Your task to perform on an android device: Go to Yahoo.com Image 0: 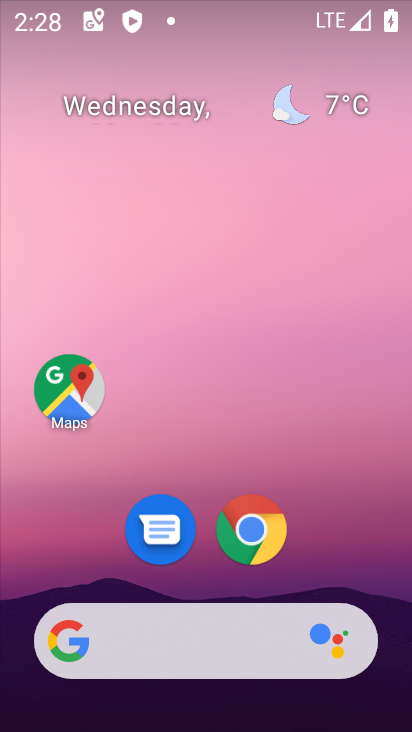
Step 0: drag from (337, 422) to (318, 100)
Your task to perform on an android device: Go to Yahoo.com Image 1: 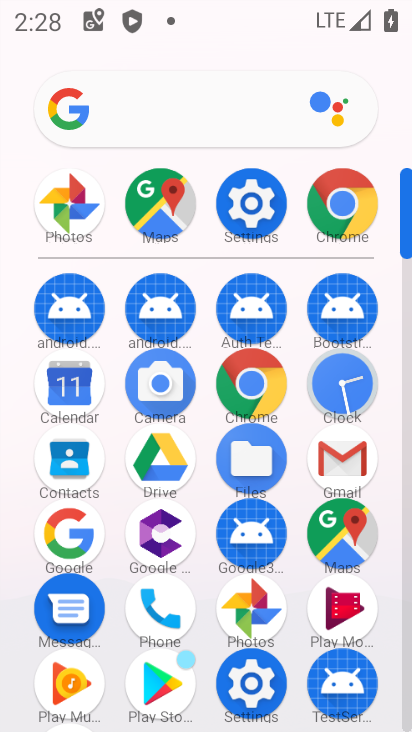
Step 1: click (370, 206)
Your task to perform on an android device: Go to Yahoo.com Image 2: 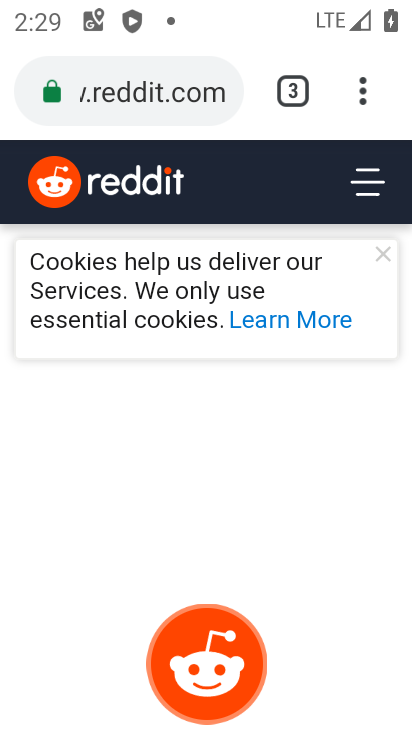
Step 2: click (213, 92)
Your task to perform on an android device: Go to Yahoo.com Image 3: 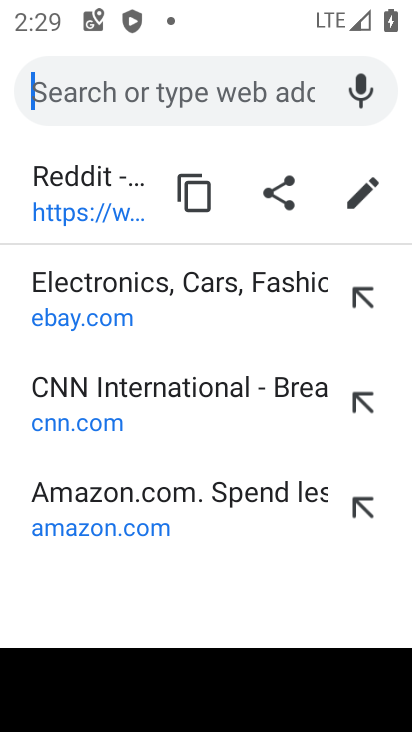
Step 3: type "yahoo"
Your task to perform on an android device: Go to Yahoo.com Image 4: 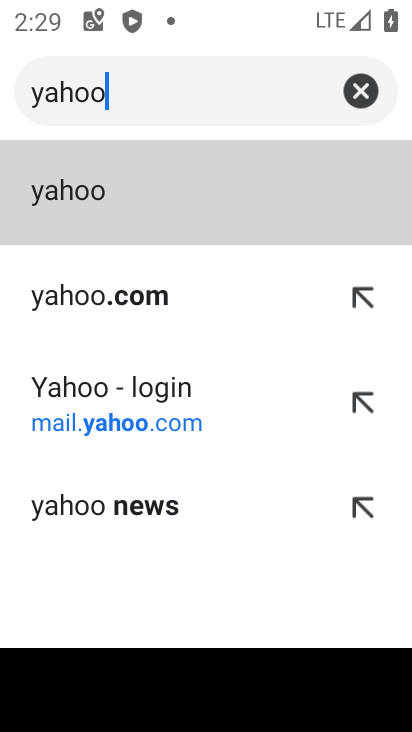
Step 4: click (116, 305)
Your task to perform on an android device: Go to Yahoo.com Image 5: 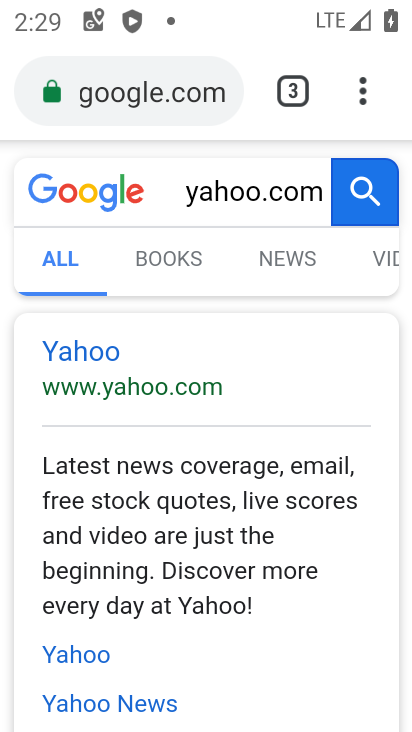
Step 5: click (101, 351)
Your task to perform on an android device: Go to Yahoo.com Image 6: 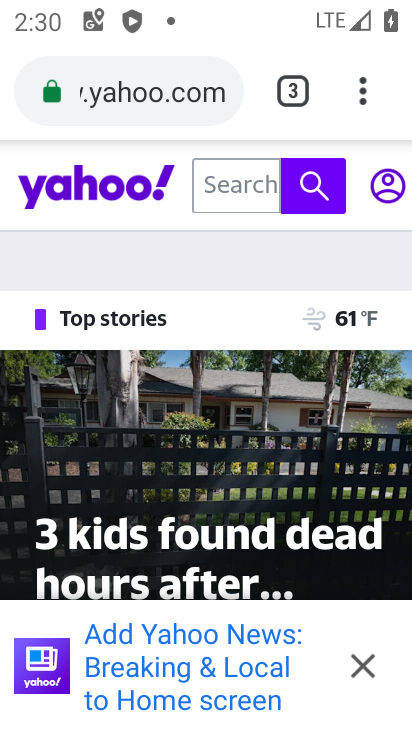
Step 6: task complete